Your task to perform on an android device: toggle priority inbox in the gmail app Image 0: 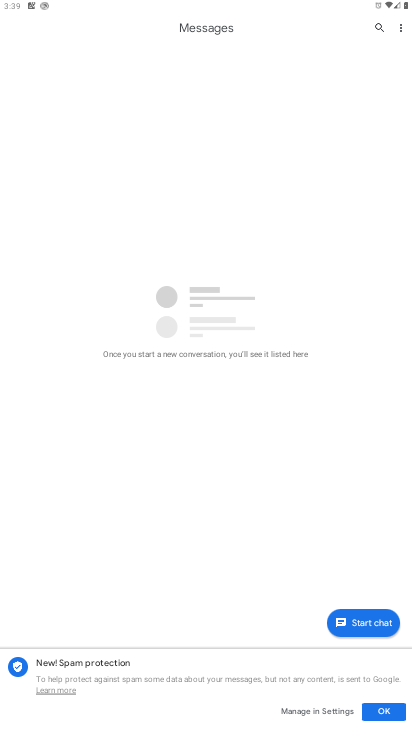
Step 0: press home button
Your task to perform on an android device: toggle priority inbox in the gmail app Image 1: 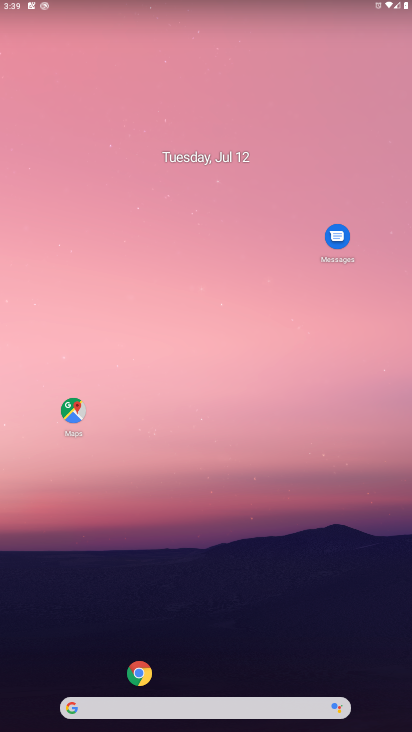
Step 1: drag from (2, 696) to (149, 142)
Your task to perform on an android device: toggle priority inbox in the gmail app Image 2: 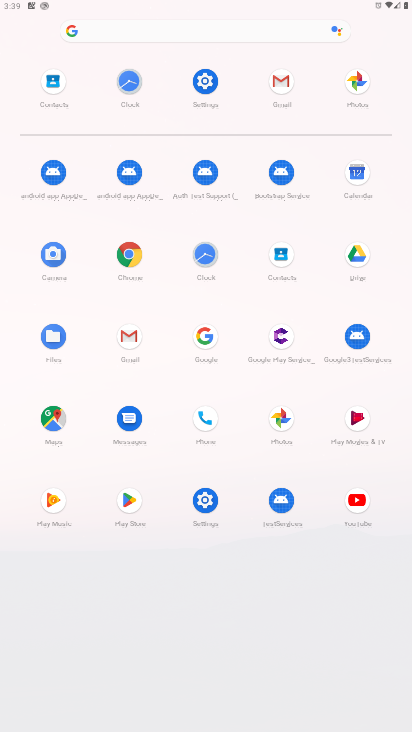
Step 2: click (118, 320)
Your task to perform on an android device: toggle priority inbox in the gmail app Image 3: 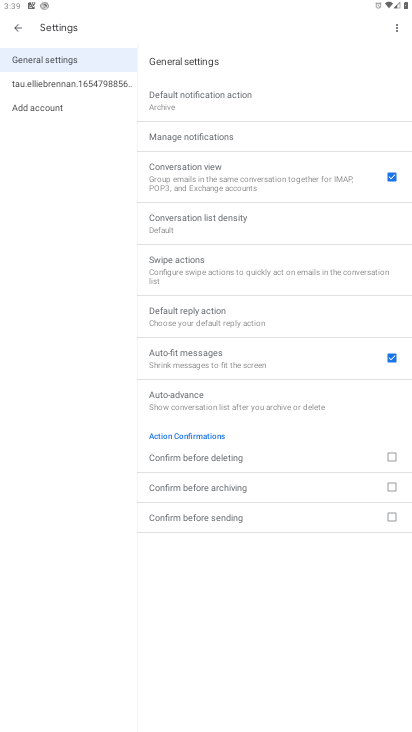
Step 3: click (6, 24)
Your task to perform on an android device: toggle priority inbox in the gmail app Image 4: 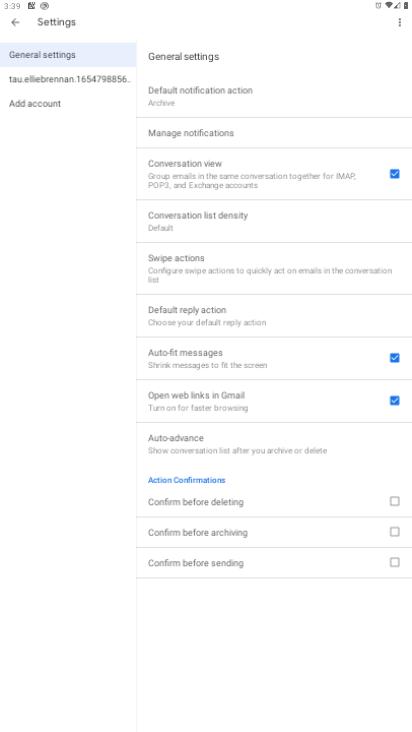
Step 4: click (23, 28)
Your task to perform on an android device: toggle priority inbox in the gmail app Image 5: 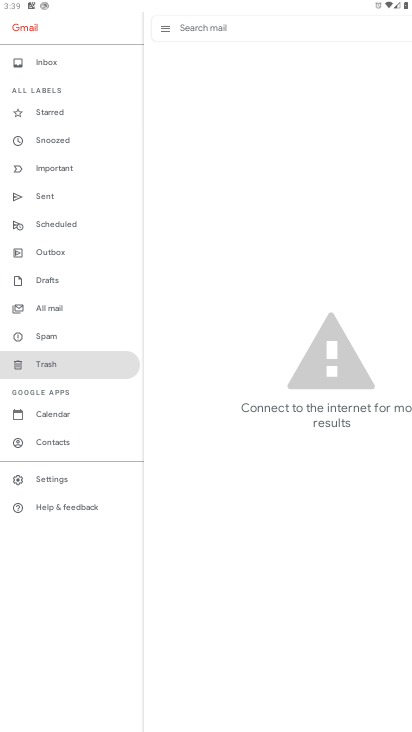
Step 5: click (57, 480)
Your task to perform on an android device: toggle priority inbox in the gmail app Image 6: 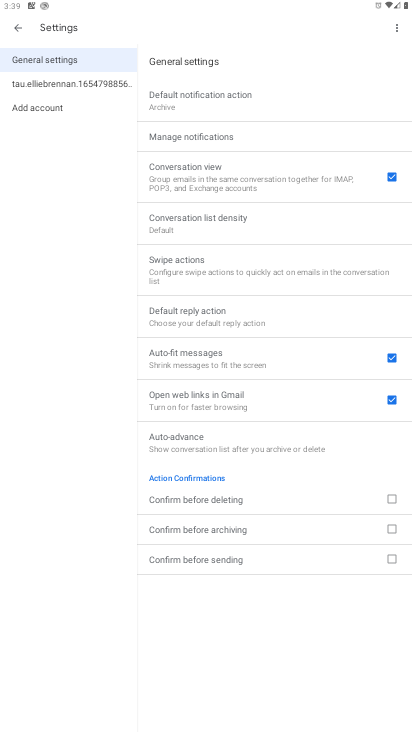
Step 6: click (193, 130)
Your task to perform on an android device: toggle priority inbox in the gmail app Image 7: 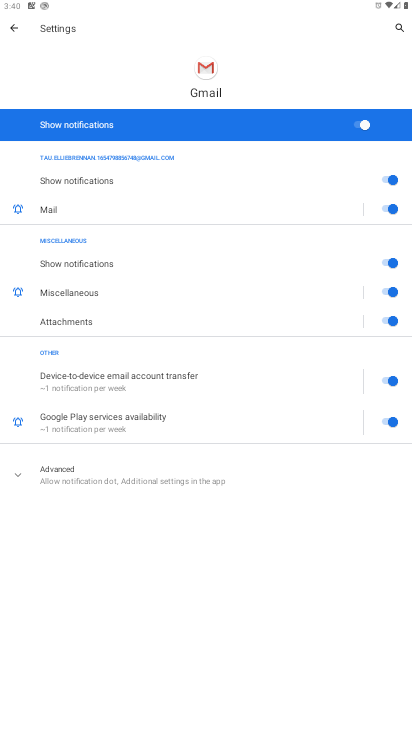
Step 7: click (13, 28)
Your task to perform on an android device: toggle priority inbox in the gmail app Image 8: 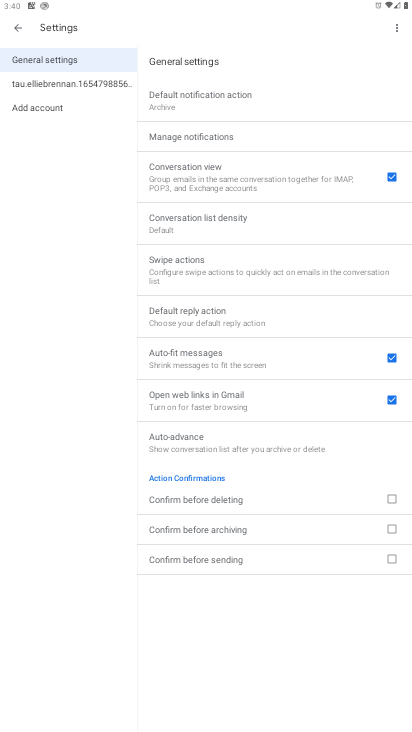
Step 8: click (183, 90)
Your task to perform on an android device: toggle priority inbox in the gmail app Image 9: 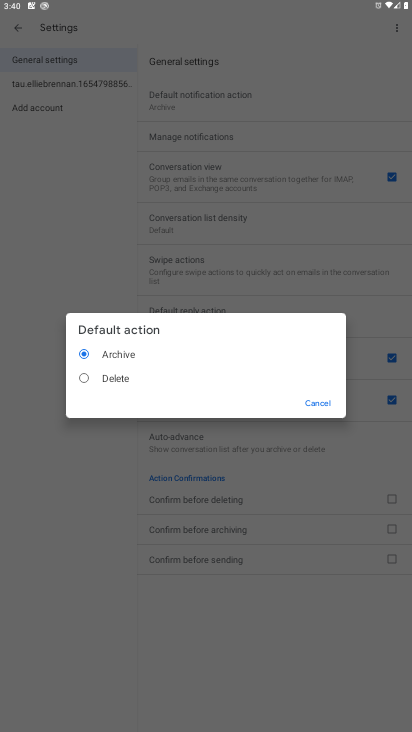
Step 9: click (59, 165)
Your task to perform on an android device: toggle priority inbox in the gmail app Image 10: 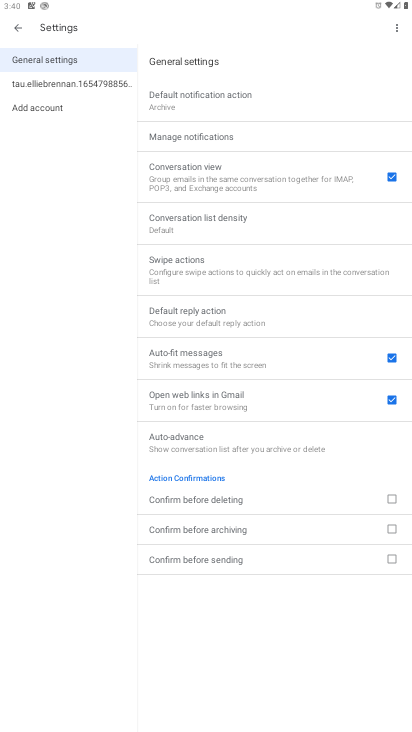
Step 10: click (56, 82)
Your task to perform on an android device: toggle priority inbox in the gmail app Image 11: 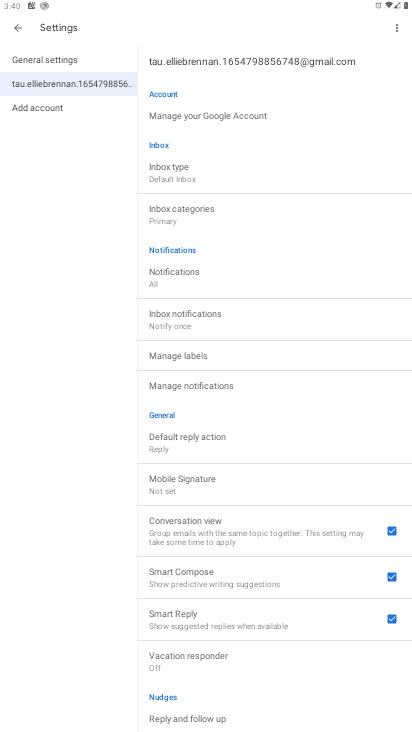
Step 11: task complete